Your task to perform on an android device: turn on airplane mode Image 0: 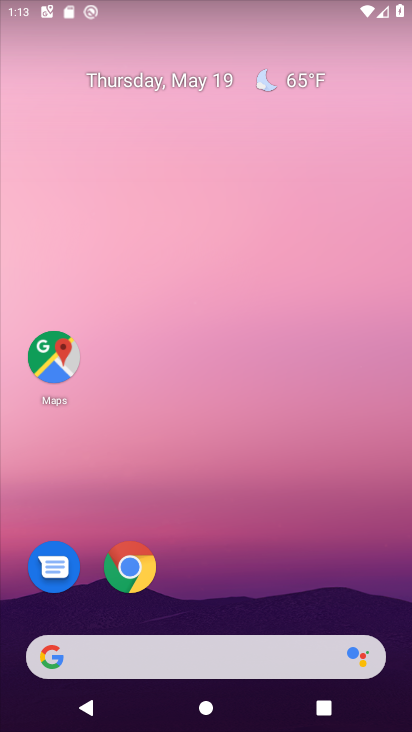
Step 0: drag from (263, 449) to (321, 130)
Your task to perform on an android device: turn on airplane mode Image 1: 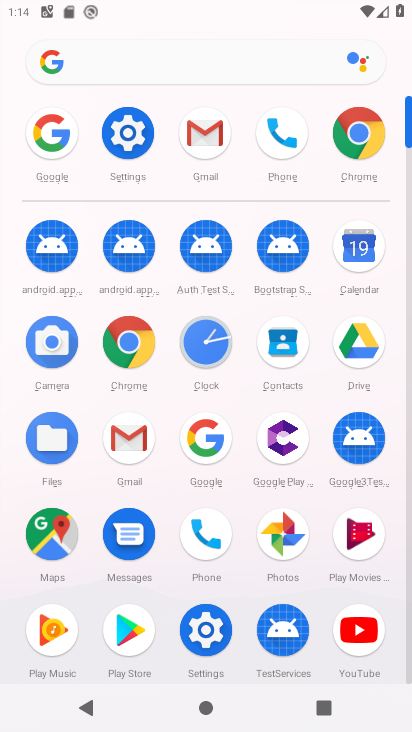
Step 1: click (125, 124)
Your task to perform on an android device: turn on airplane mode Image 2: 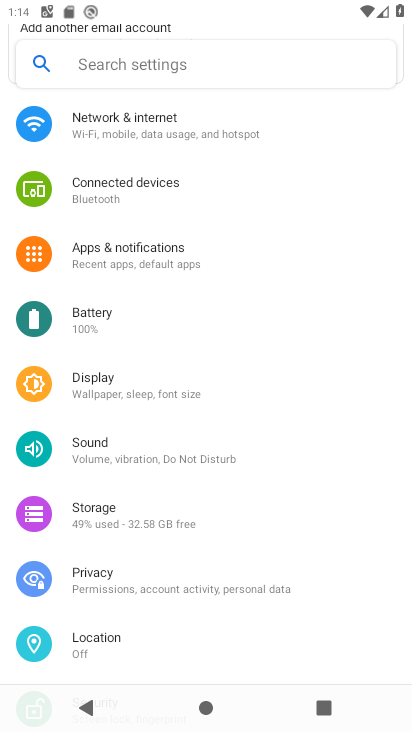
Step 2: click (127, 107)
Your task to perform on an android device: turn on airplane mode Image 3: 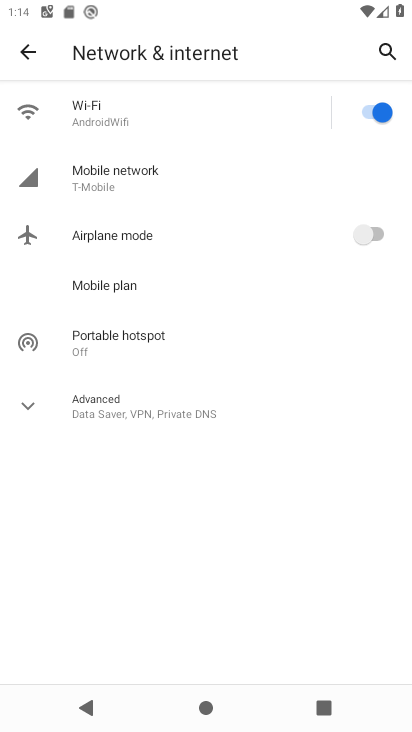
Step 3: click (367, 238)
Your task to perform on an android device: turn on airplane mode Image 4: 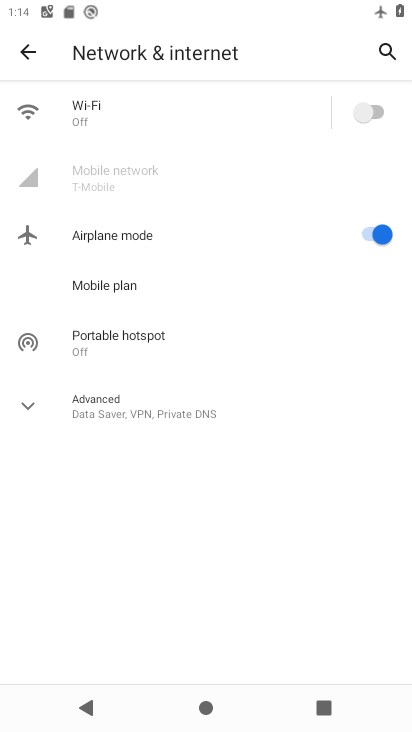
Step 4: task complete